Your task to perform on an android device: create a new album in the google photos Image 0: 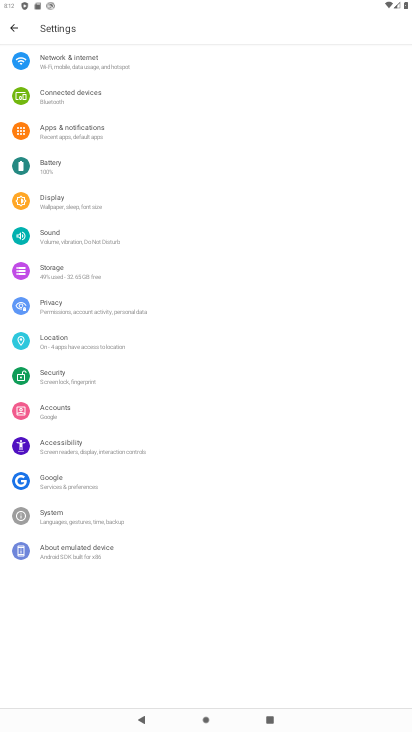
Step 0: press home button
Your task to perform on an android device: create a new album in the google photos Image 1: 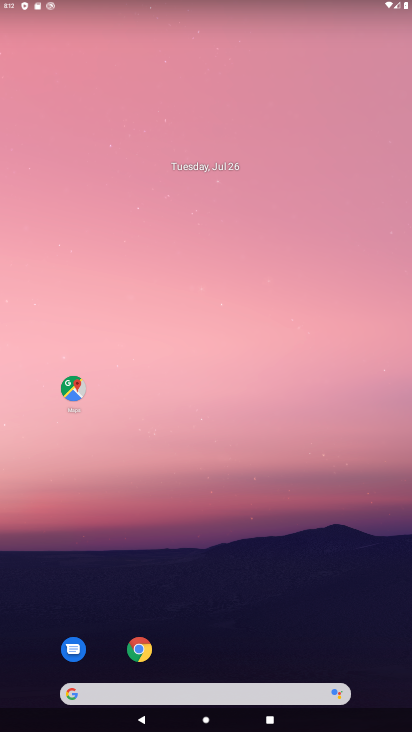
Step 1: drag from (215, 658) to (245, 112)
Your task to perform on an android device: create a new album in the google photos Image 2: 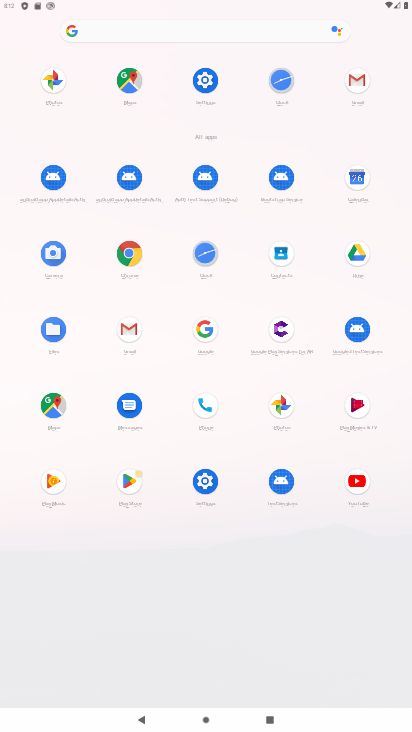
Step 2: click (37, 85)
Your task to perform on an android device: create a new album in the google photos Image 3: 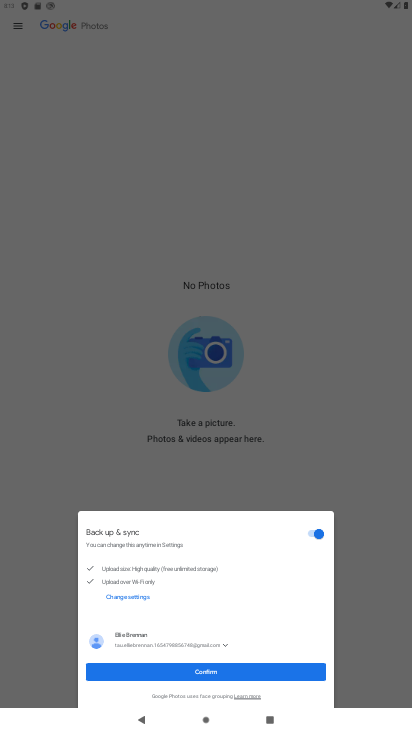
Step 3: click (228, 671)
Your task to perform on an android device: create a new album in the google photos Image 4: 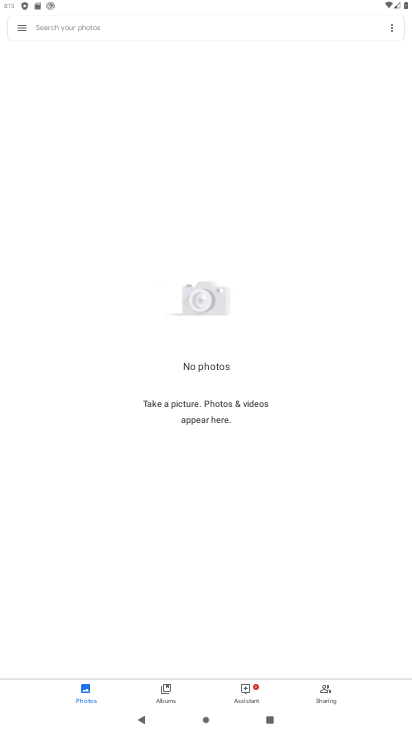
Step 4: task complete